Your task to perform on an android device: Open Maps and search for coffee Image 0: 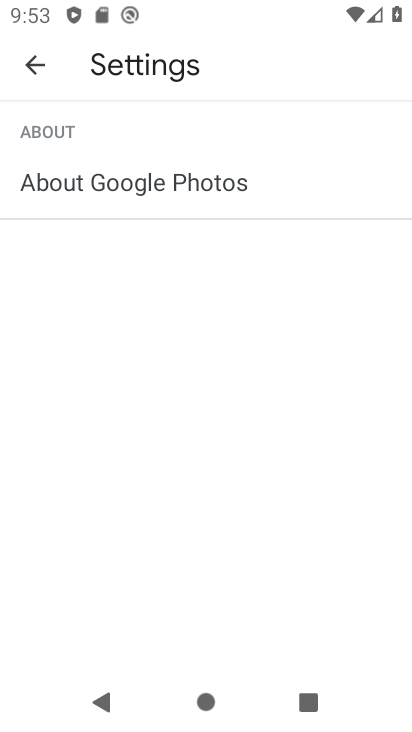
Step 0: press home button
Your task to perform on an android device: Open Maps and search for coffee Image 1: 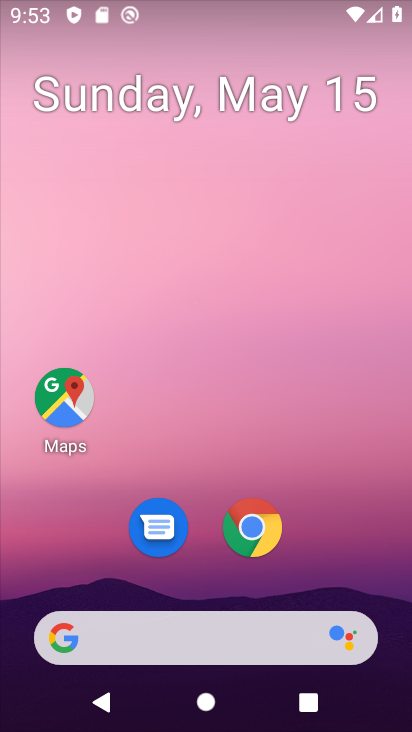
Step 1: click (59, 408)
Your task to perform on an android device: Open Maps and search for coffee Image 2: 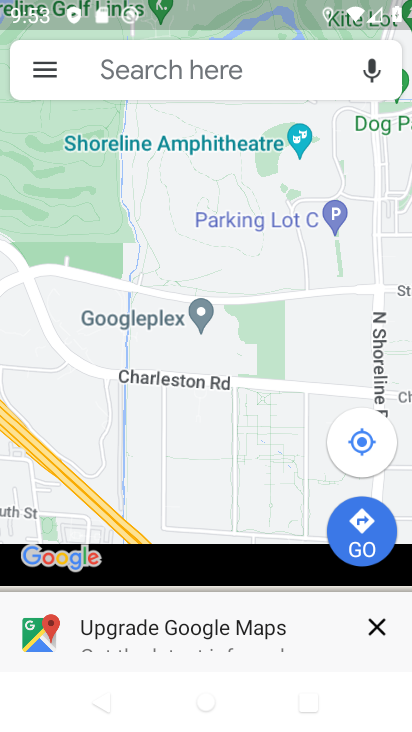
Step 2: click (192, 69)
Your task to perform on an android device: Open Maps and search for coffee Image 3: 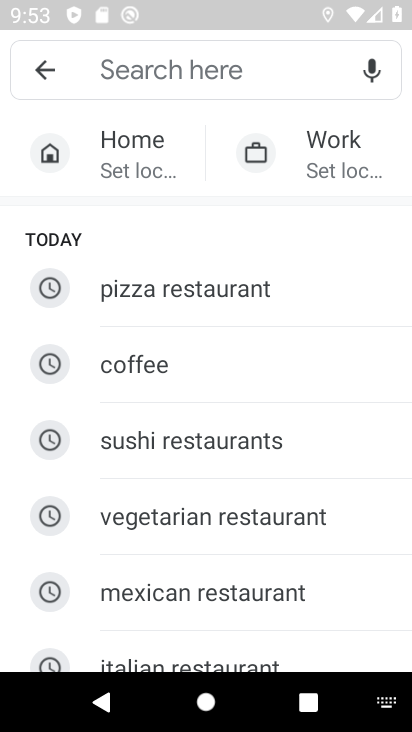
Step 3: type "Coffee "
Your task to perform on an android device: Open Maps and search for coffee Image 4: 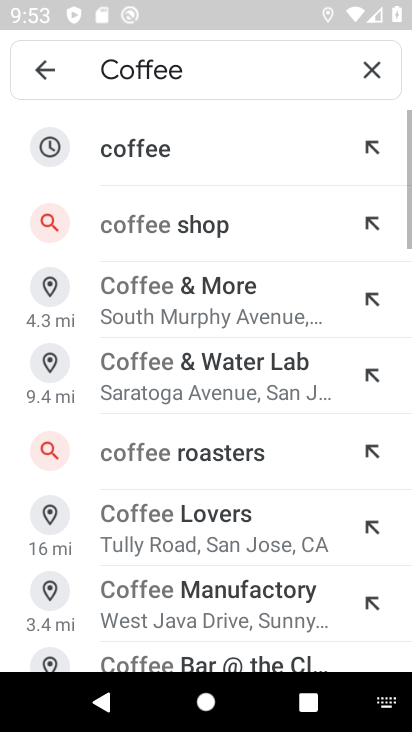
Step 4: click (149, 162)
Your task to perform on an android device: Open Maps and search for coffee Image 5: 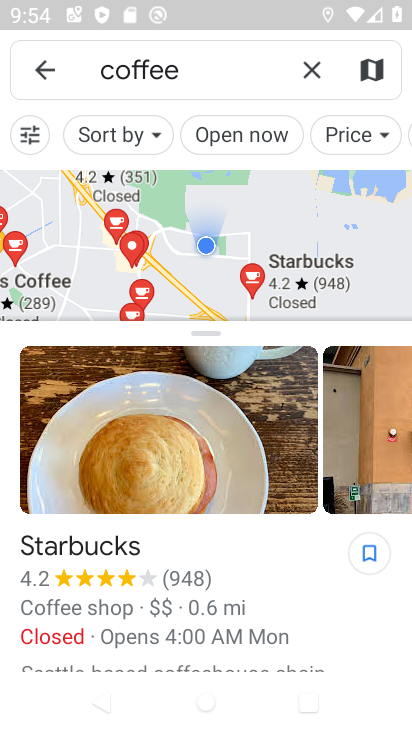
Step 5: task complete